Your task to perform on an android device: install app "Pandora - Music & Podcasts" Image 0: 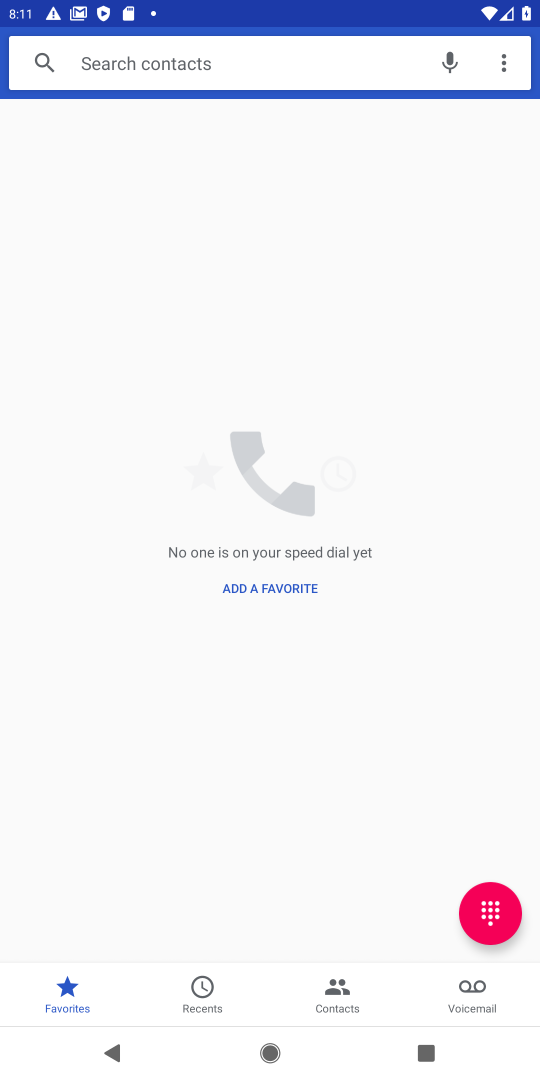
Step 0: press home button
Your task to perform on an android device: install app "Pandora - Music & Podcasts" Image 1: 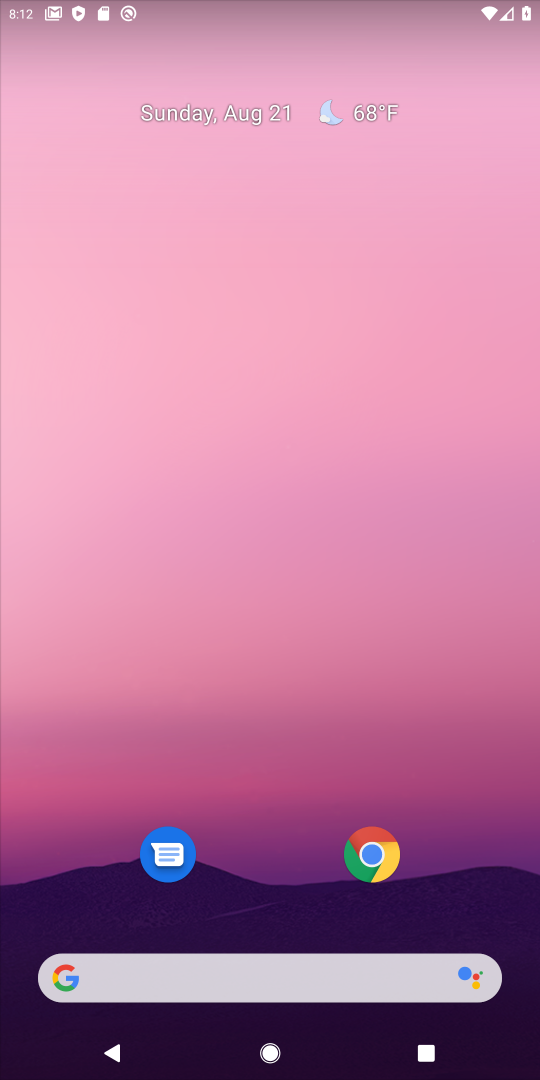
Step 1: drag from (294, 948) to (266, 37)
Your task to perform on an android device: install app "Pandora - Music & Podcasts" Image 2: 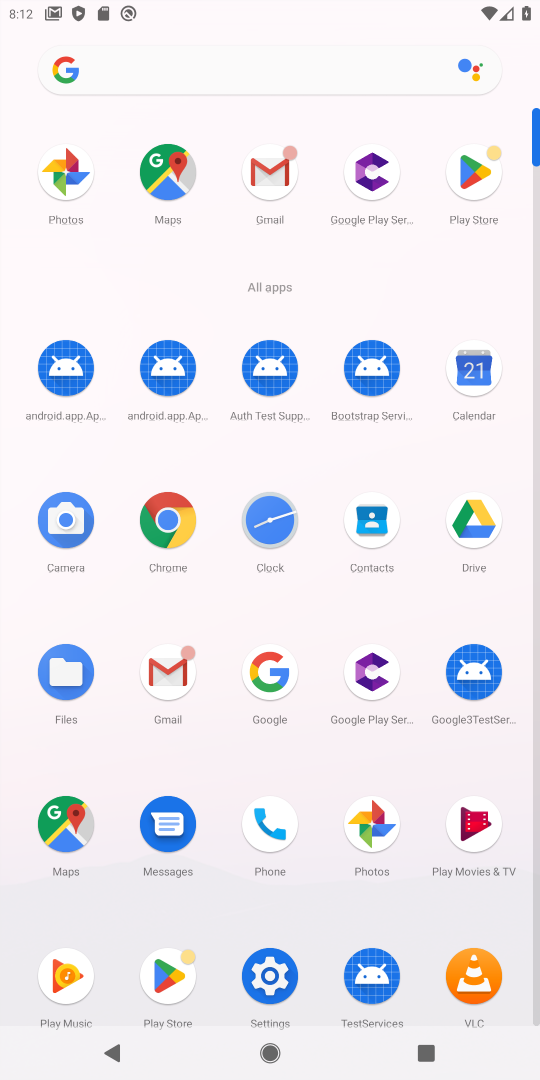
Step 2: click (468, 164)
Your task to perform on an android device: install app "Pandora - Music & Podcasts" Image 3: 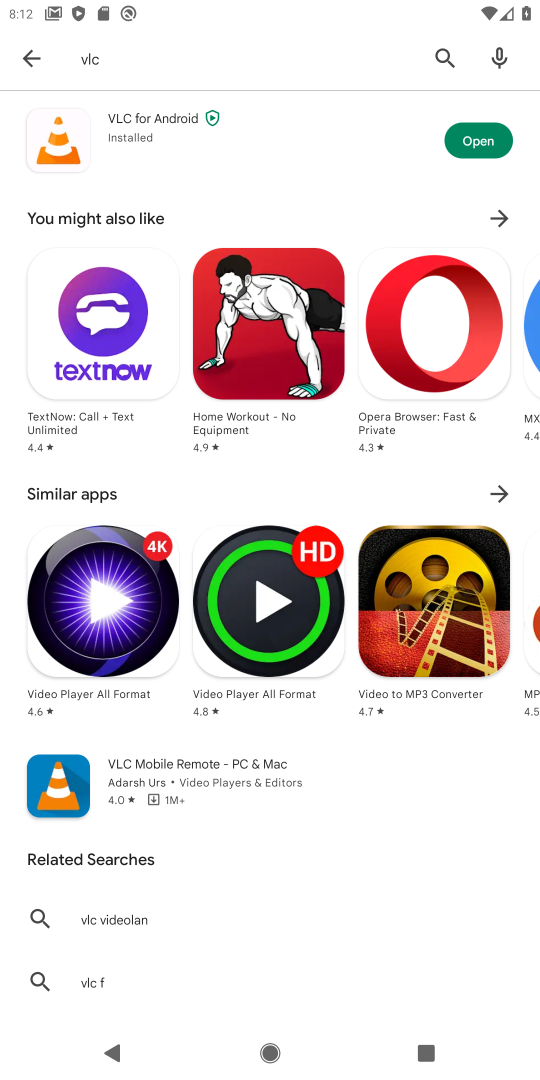
Step 3: click (434, 75)
Your task to perform on an android device: install app "Pandora - Music & Podcasts" Image 4: 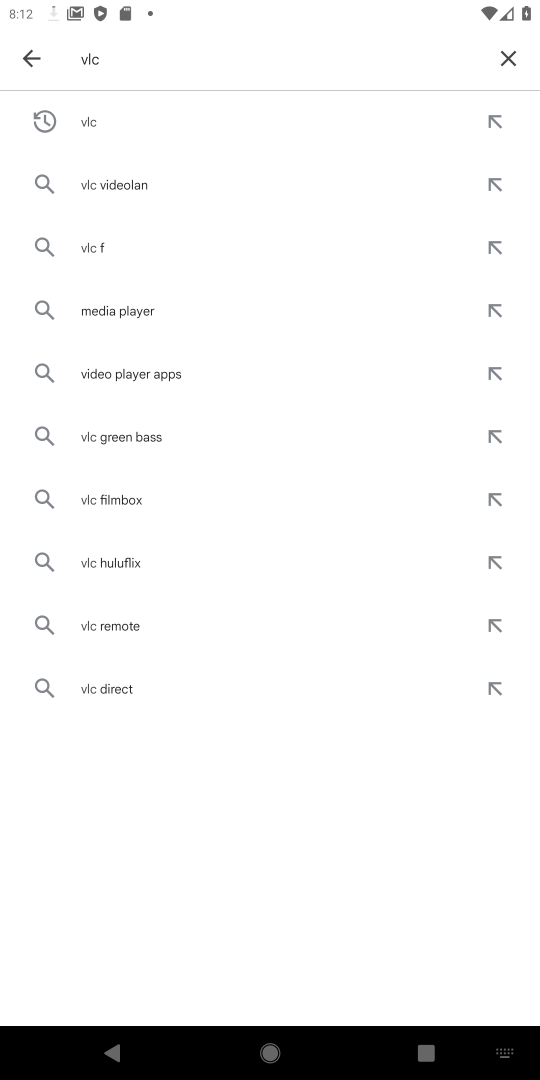
Step 4: click (502, 48)
Your task to perform on an android device: install app "Pandora - Music & Podcasts" Image 5: 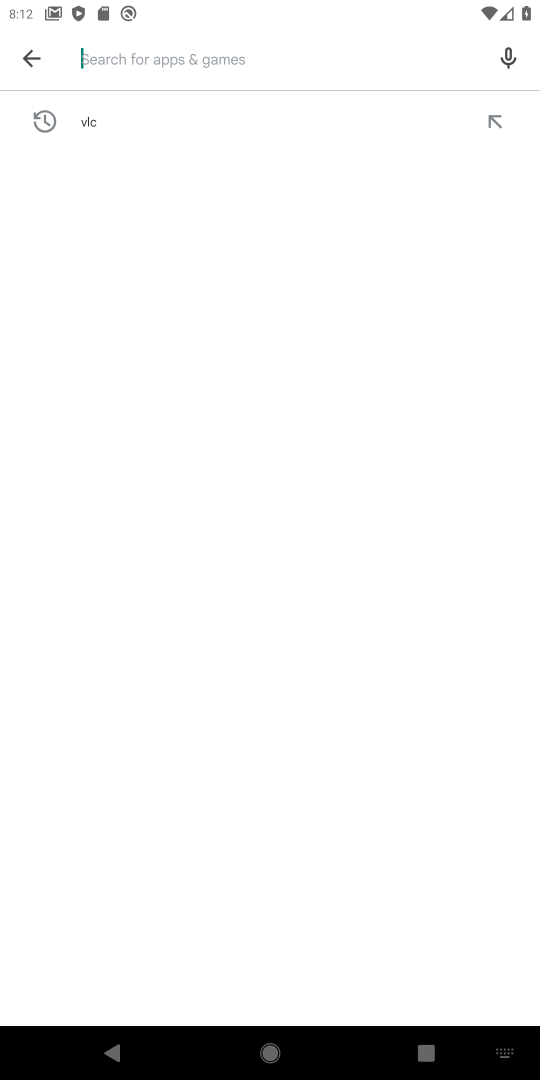
Step 5: type "pandora"
Your task to perform on an android device: install app "Pandora - Music & Podcasts" Image 6: 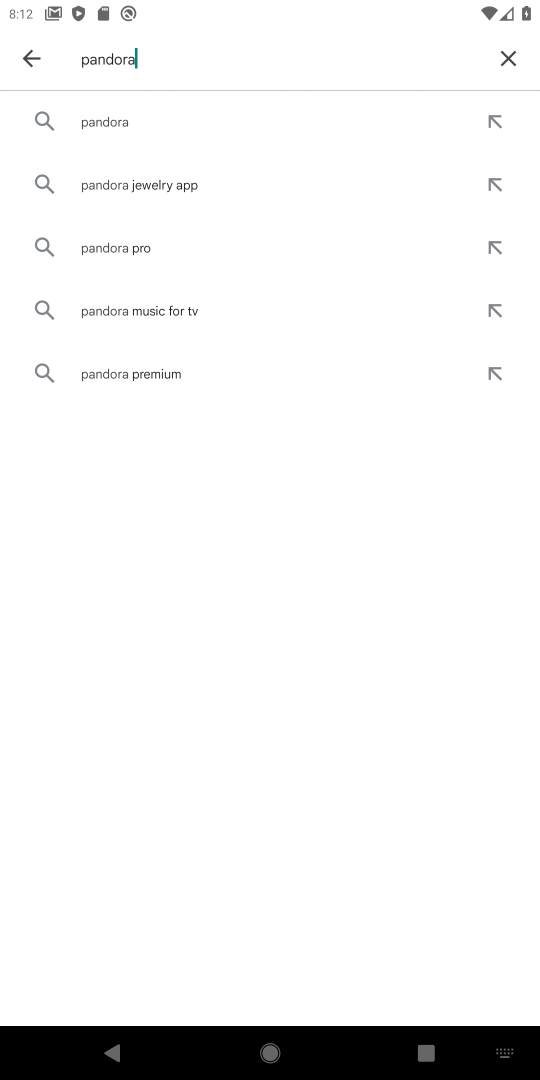
Step 6: click (248, 133)
Your task to perform on an android device: install app "Pandora - Music & Podcasts" Image 7: 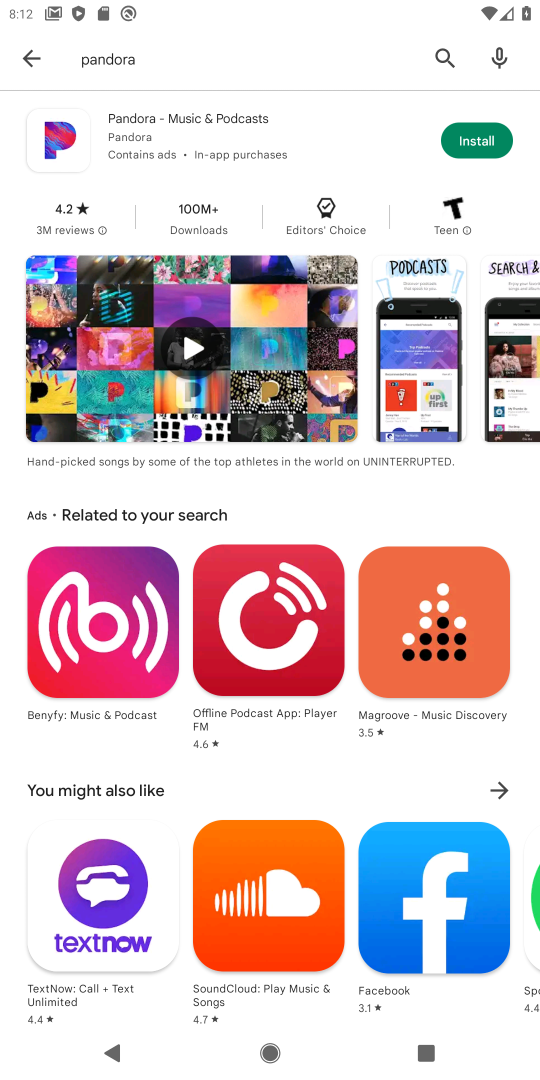
Step 7: click (471, 132)
Your task to perform on an android device: install app "Pandora - Music & Podcasts" Image 8: 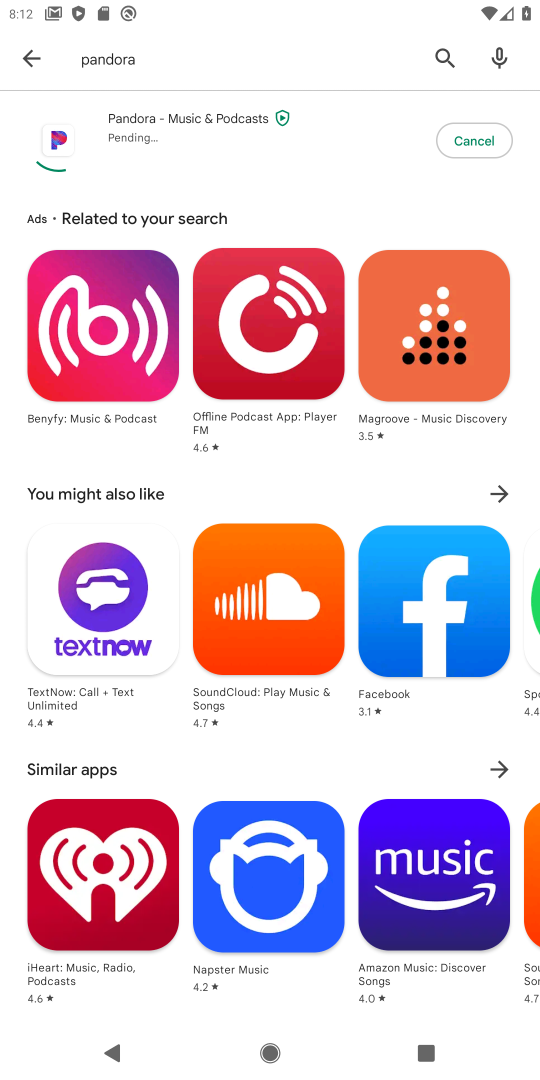
Step 8: task complete